Your task to perform on an android device: turn notification dots on Image 0: 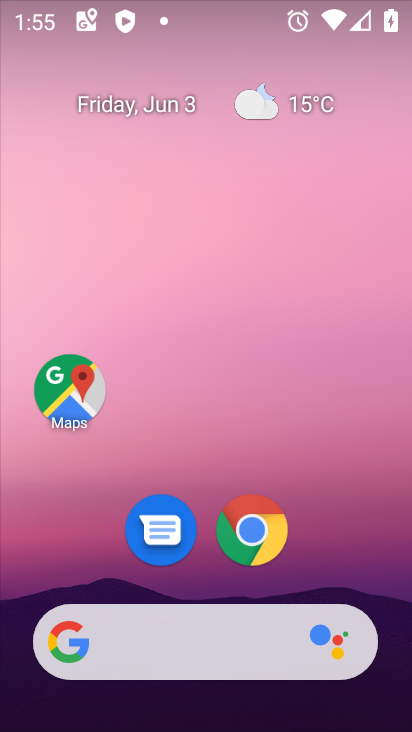
Step 0: press home button
Your task to perform on an android device: turn notification dots on Image 1: 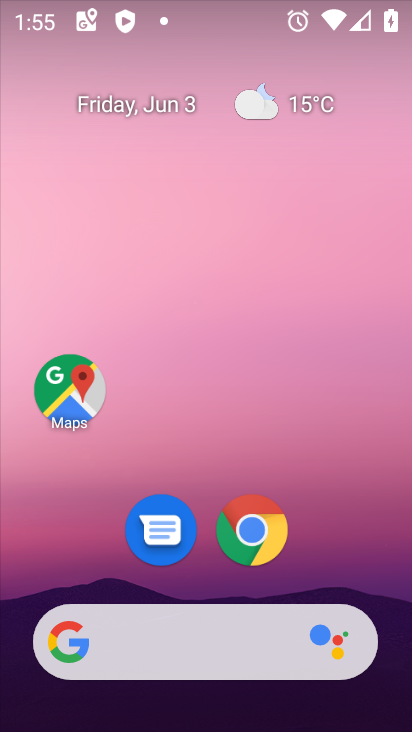
Step 1: drag from (350, 463) to (353, 123)
Your task to perform on an android device: turn notification dots on Image 2: 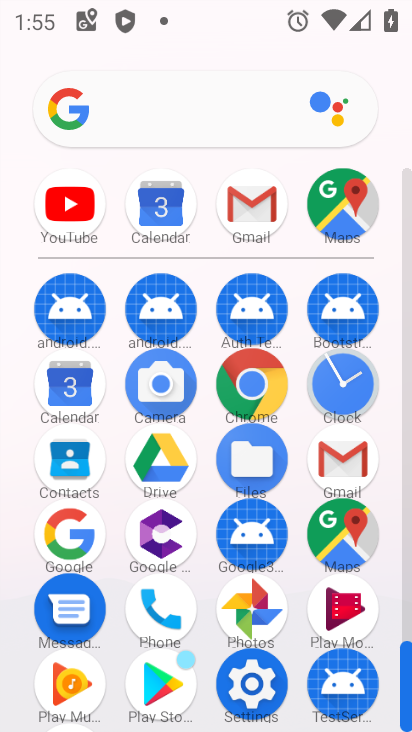
Step 2: drag from (207, 629) to (202, 354)
Your task to perform on an android device: turn notification dots on Image 3: 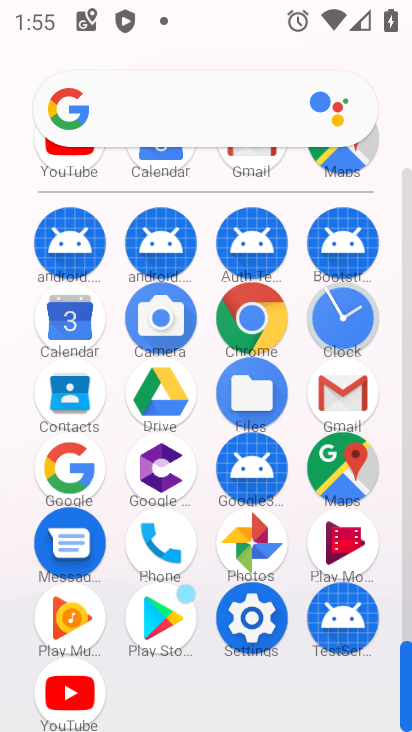
Step 3: click (255, 595)
Your task to perform on an android device: turn notification dots on Image 4: 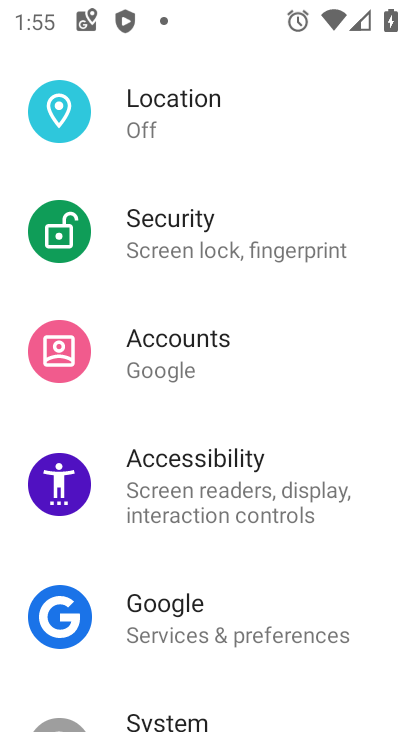
Step 4: drag from (291, 673) to (243, 716)
Your task to perform on an android device: turn notification dots on Image 5: 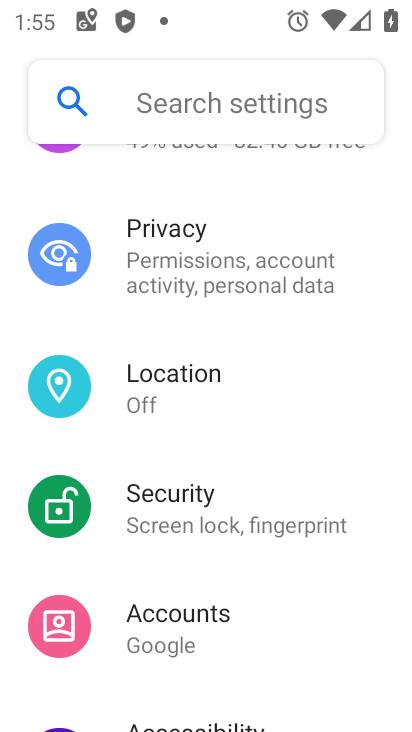
Step 5: drag from (374, 206) to (309, 712)
Your task to perform on an android device: turn notification dots on Image 6: 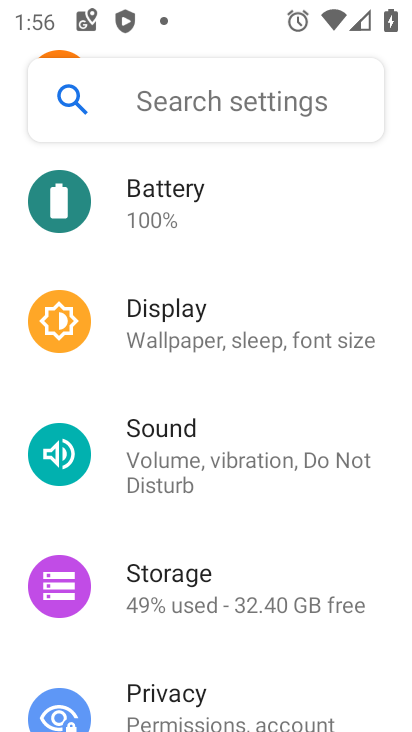
Step 6: drag from (373, 169) to (375, 526)
Your task to perform on an android device: turn notification dots on Image 7: 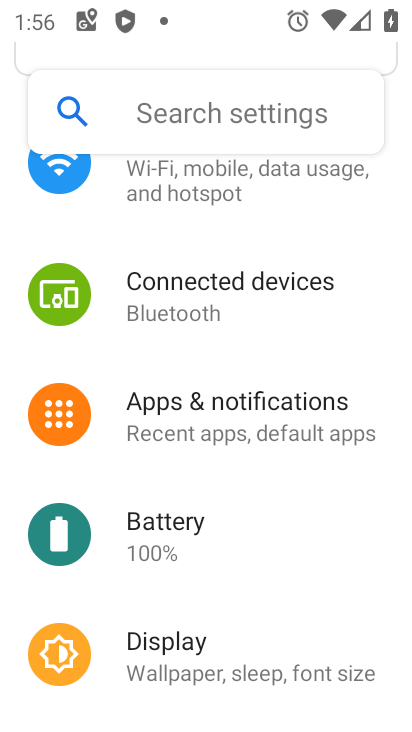
Step 7: click (268, 413)
Your task to perform on an android device: turn notification dots on Image 8: 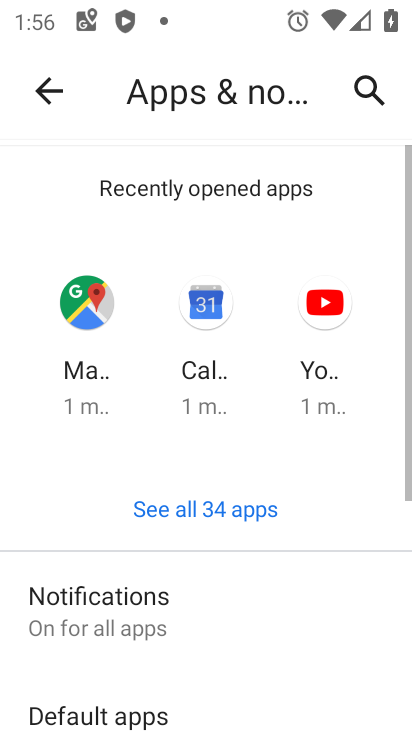
Step 8: drag from (325, 586) to (339, 70)
Your task to perform on an android device: turn notification dots on Image 9: 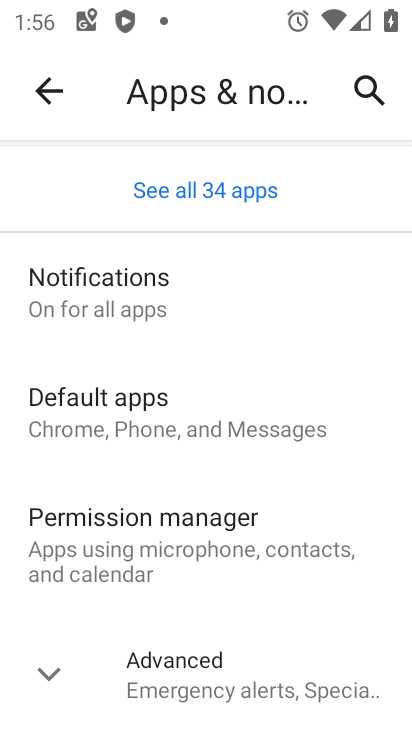
Step 9: click (93, 306)
Your task to perform on an android device: turn notification dots on Image 10: 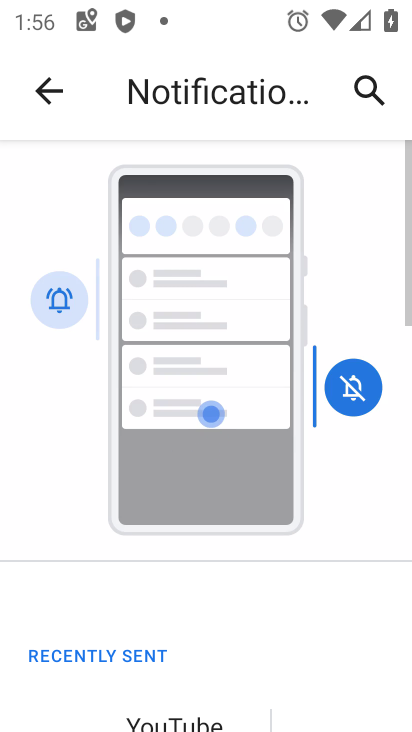
Step 10: drag from (340, 691) to (307, 3)
Your task to perform on an android device: turn notification dots on Image 11: 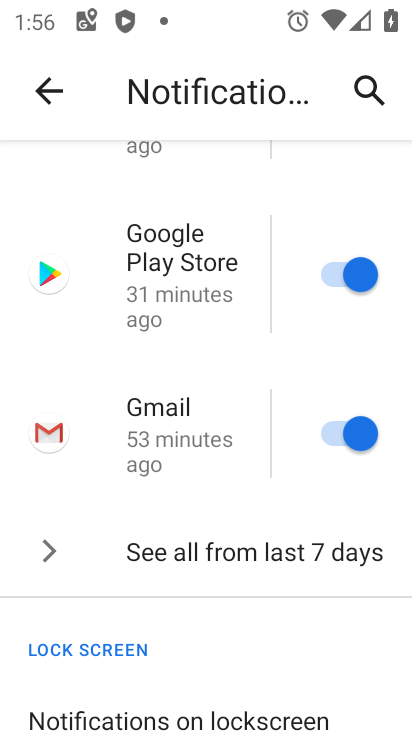
Step 11: drag from (313, 665) to (281, 189)
Your task to perform on an android device: turn notification dots on Image 12: 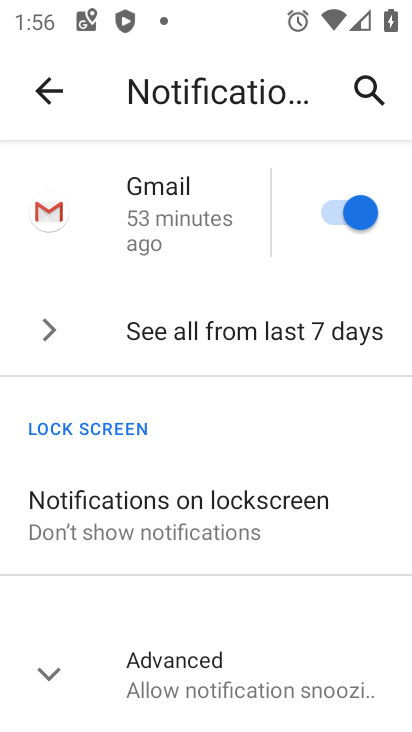
Step 12: click (61, 673)
Your task to perform on an android device: turn notification dots on Image 13: 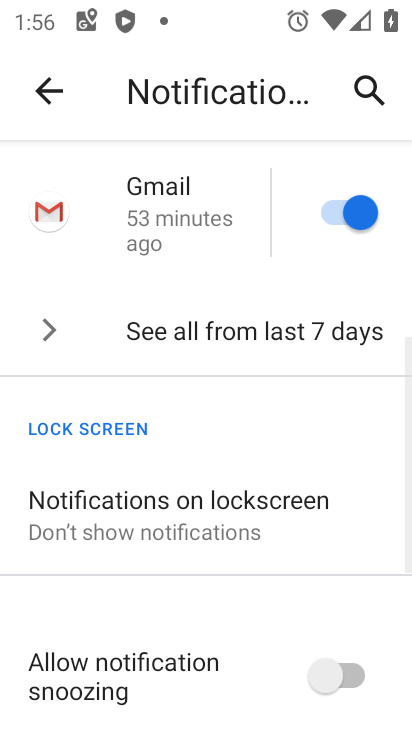
Step 13: task complete